Your task to perform on an android device: set an alarm Image 0: 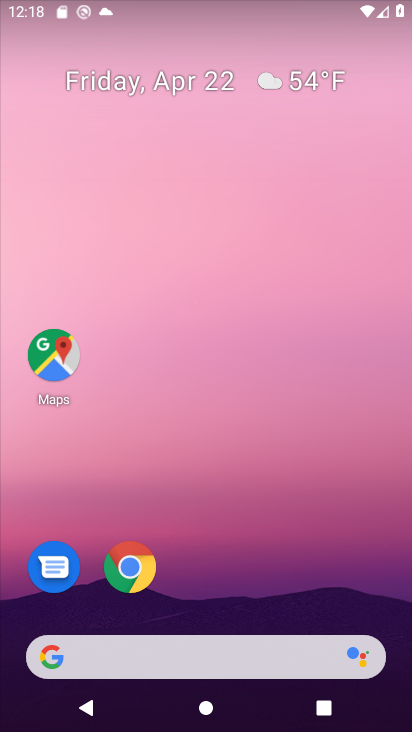
Step 0: drag from (242, 643) to (316, 124)
Your task to perform on an android device: set an alarm Image 1: 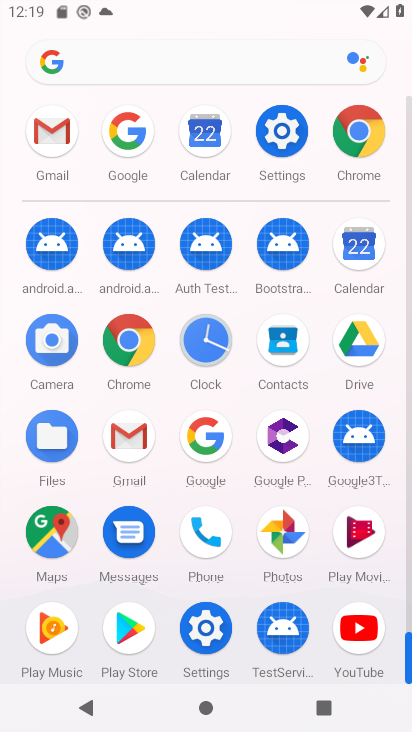
Step 1: click (212, 347)
Your task to perform on an android device: set an alarm Image 2: 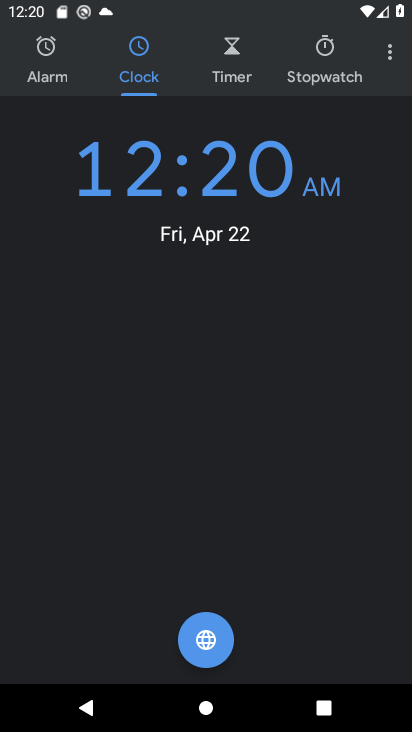
Step 2: click (59, 63)
Your task to perform on an android device: set an alarm Image 3: 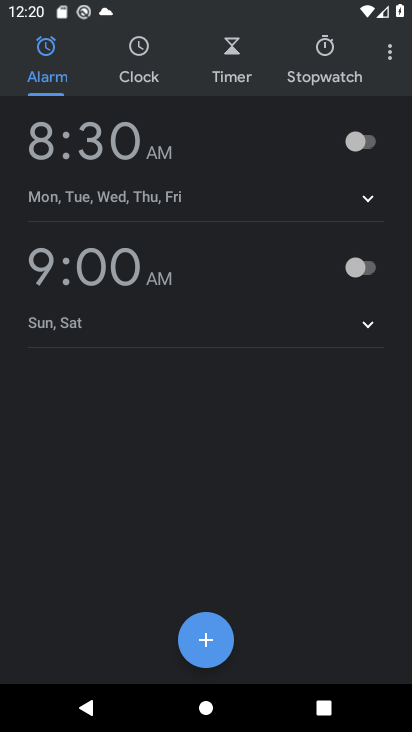
Step 3: click (212, 646)
Your task to perform on an android device: set an alarm Image 4: 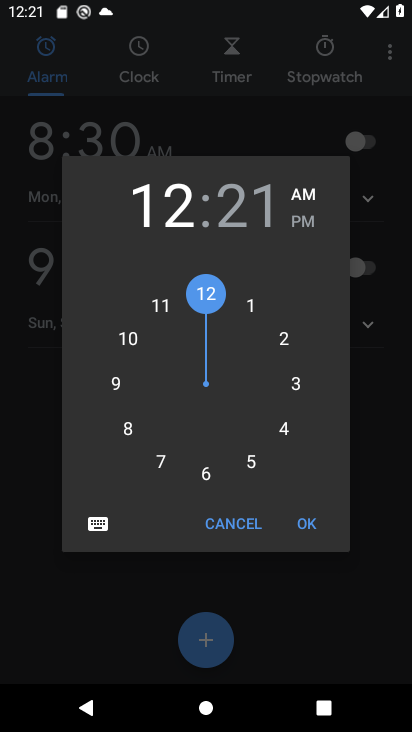
Step 4: click (300, 525)
Your task to perform on an android device: set an alarm Image 5: 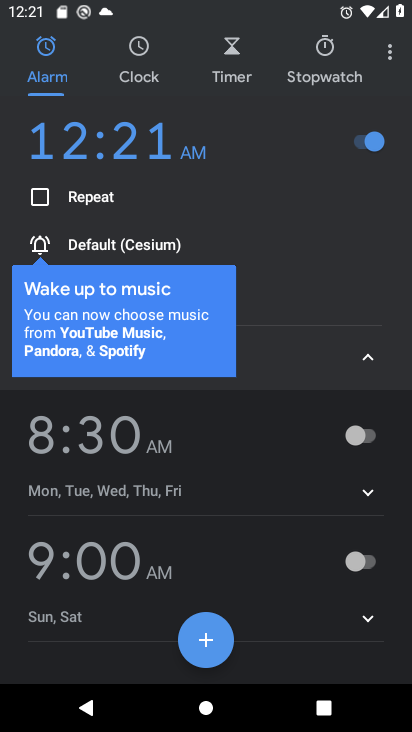
Step 5: press home button
Your task to perform on an android device: set an alarm Image 6: 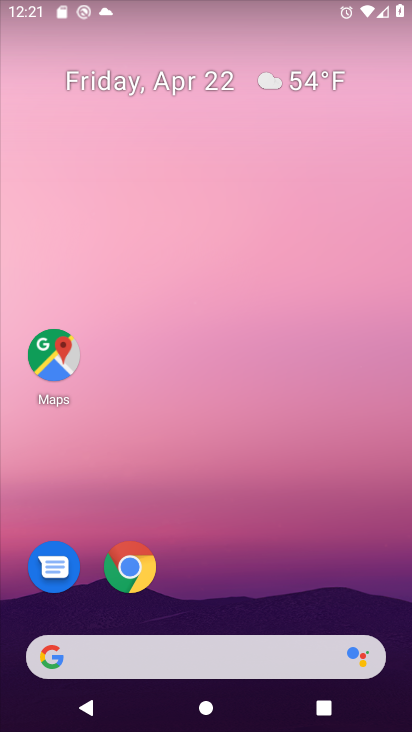
Step 6: drag from (294, 274) to (293, 182)
Your task to perform on an android device: set an alarm Image 7: 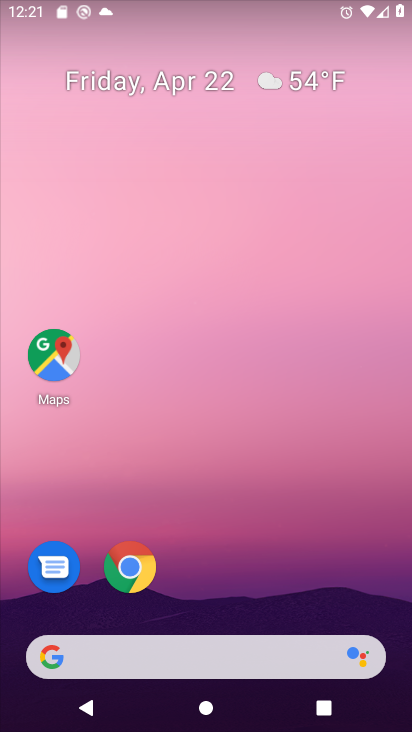
Step 7: drag from (267, 520) to (316, 190)
Your task to perform on an android device: set an alarm Image 8: 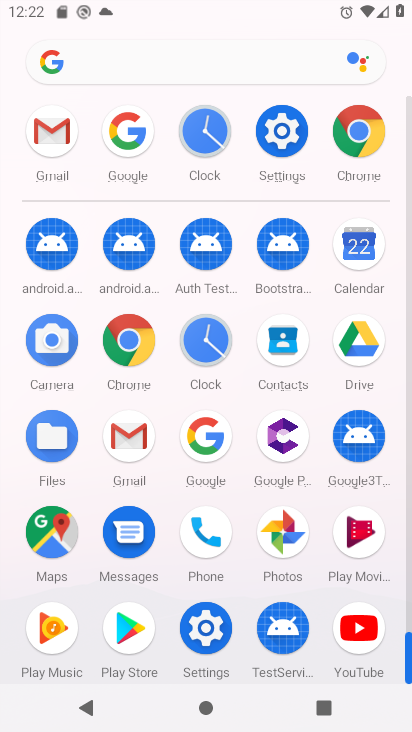
Step 8: click (200, 346)
Your task to perform on an android device: set an alarm Image 9: 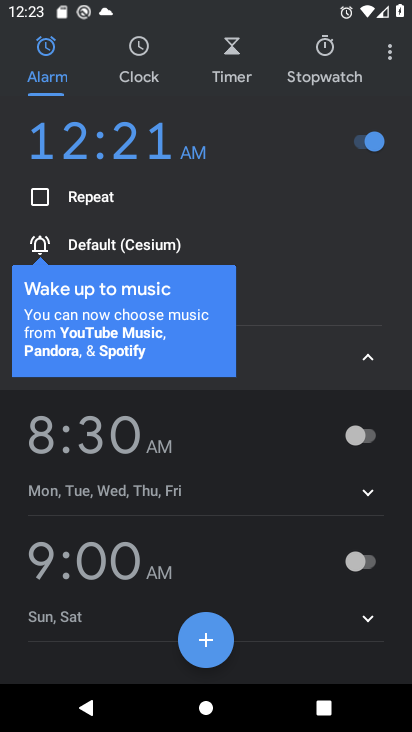
Step 9: click (207, 636)
Your task to perform on an android device: set an alarm Image 10: 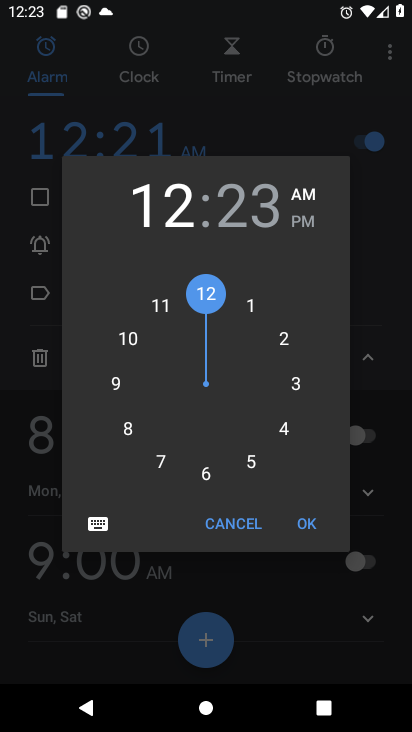
Step 10: click (305, 525)
Your task to perform on an android device: set an alarm Image 11: 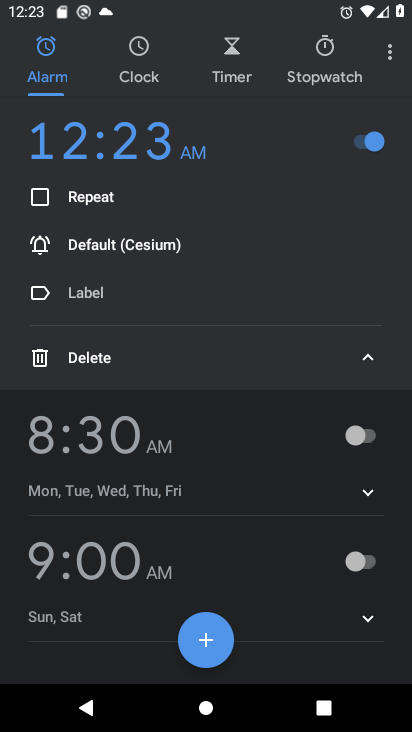
Step 11: click (214, 646)
Your task to perform on an android device: set an alarm Image 12: 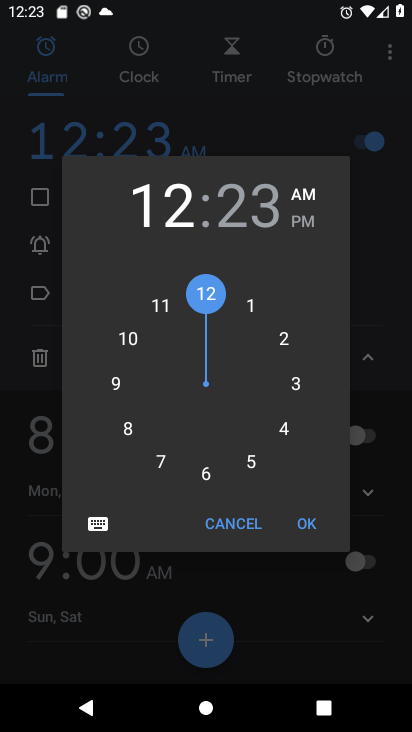
Step 12: click (305, 526)
Your task to perform on an android device: set an alarm Image 13: 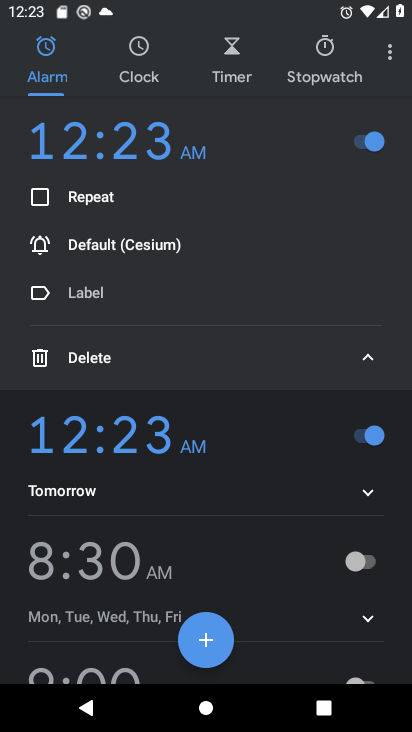
Step 13: task complete